Your task to perform on an android device: Go to Maps Image 0: 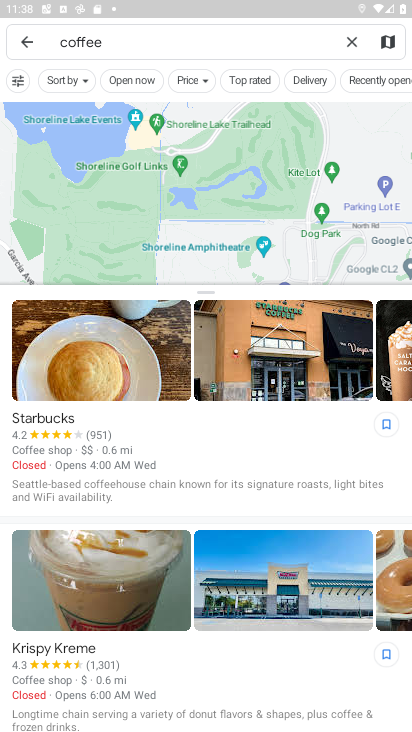
Step 0: task complete